Your task to perform on an android device: search for starred emails in the gmail app Image 0: 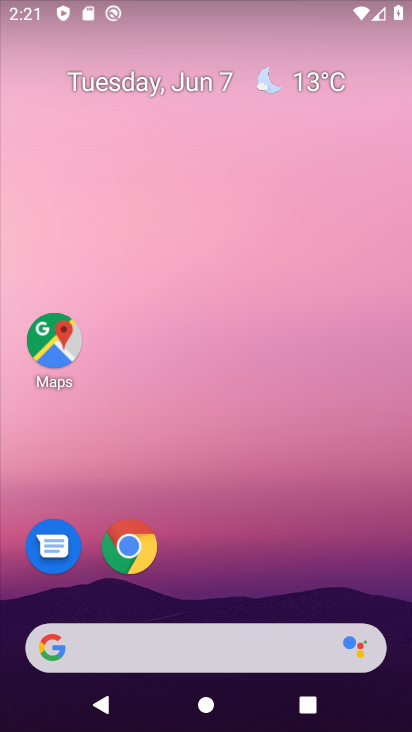
Step 0: drag from (207, 597) to (144, 110)
Your task to perform on an android device: search for starred emails in the gmail app Image 1: 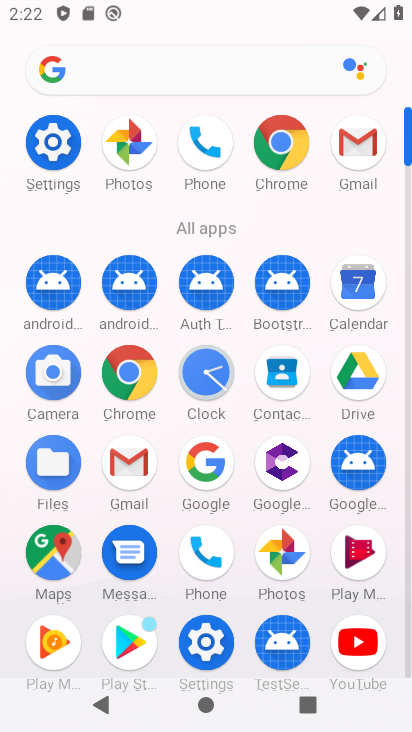
Step 1: click (119, 458)
Your task to perform on an android device: search for starred emails in the gmail app Image 2: 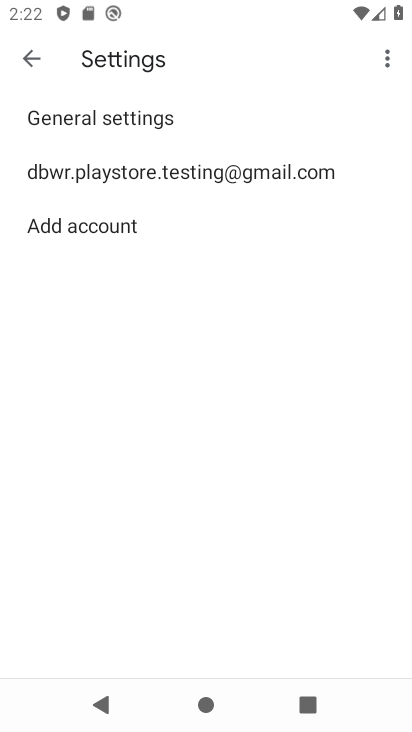
Step 2: click (44, 63)
Your task to perform on an android device: search for starred emails in the gmail app Image 3: 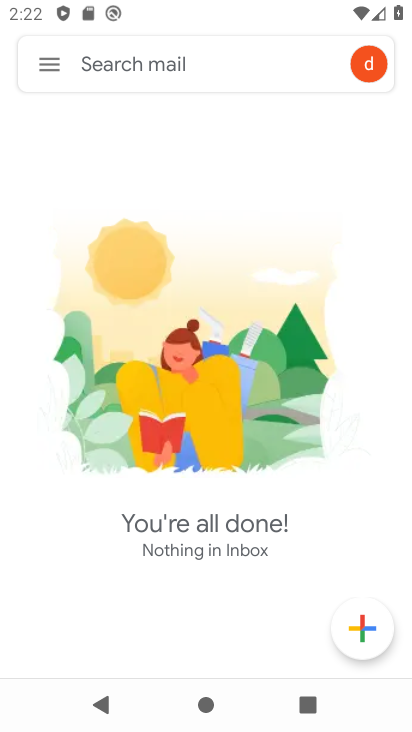
Step 3: click (46, 74)
Your task to perform on an android device: search for starred emails in the gmail app Image 4: 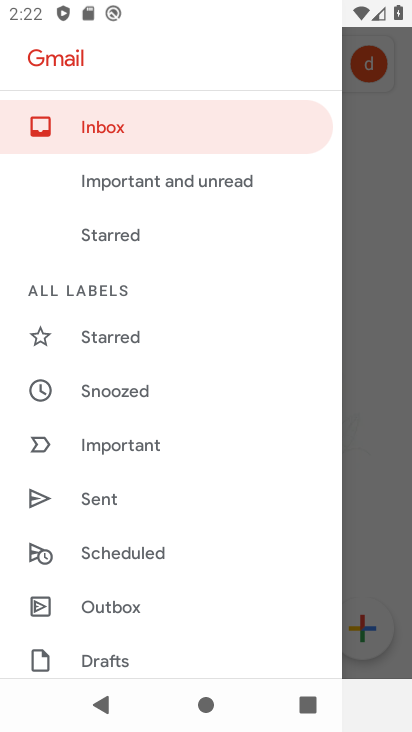
Step 4: click (162, 337)
Your task to perform on an android device: search for starred emails in the gmail app Image 5: 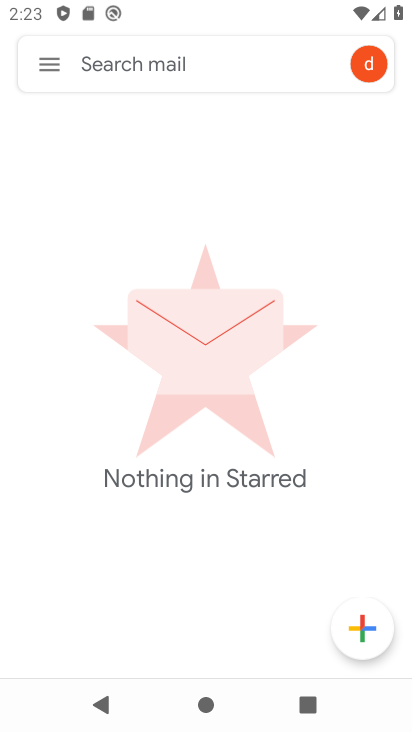
Step 5: task complete